Your task to perform on an android device: clear history in the chrome app Image 0: 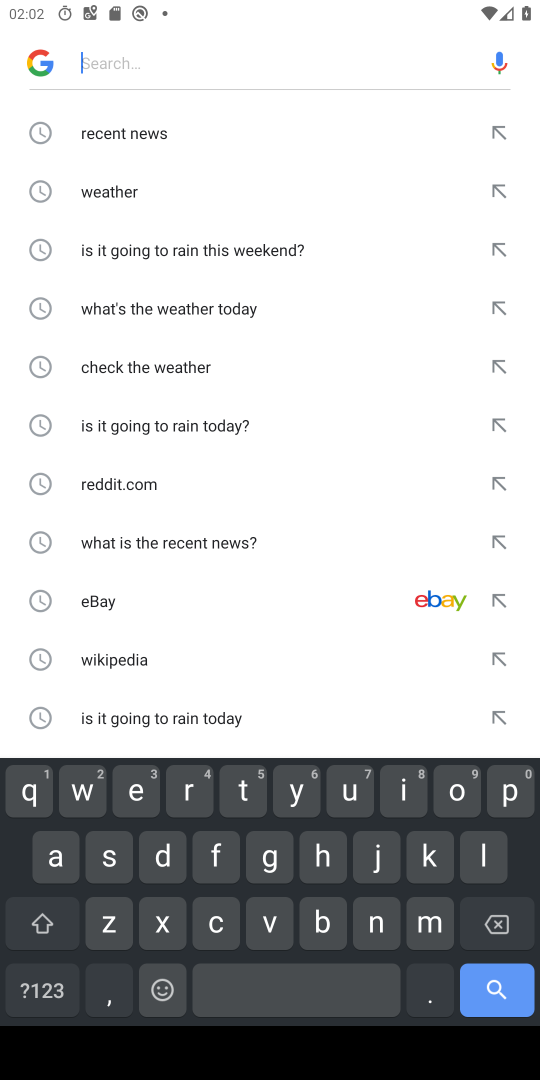
Step 0: press home button
Your task to perform on an android device: clear history in the chrome app Image 1: 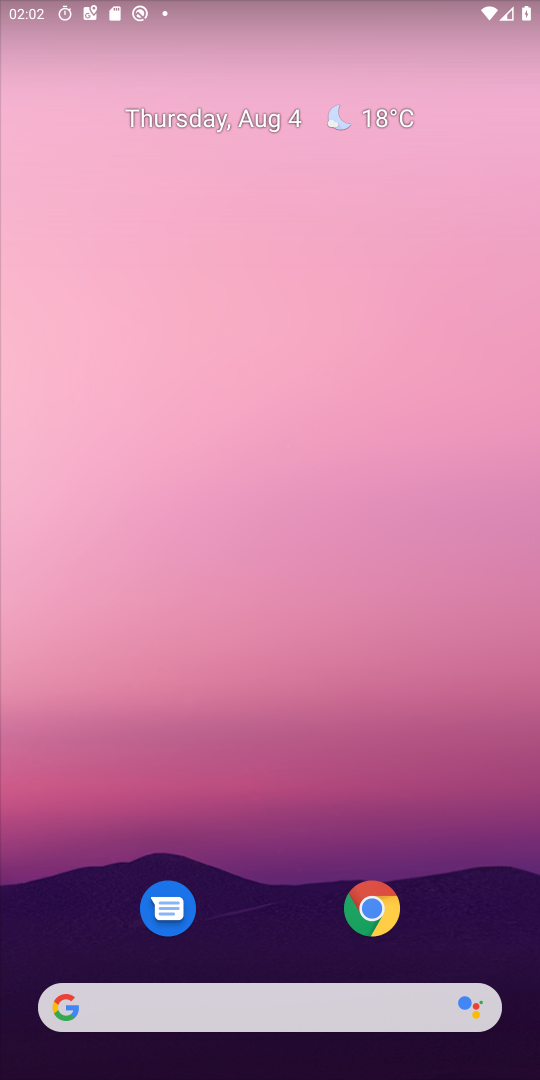
Step 1: drag from (344, 1022) to (262, 271)
Your task to perform on an android device: clear history in the chrome app Image 2: 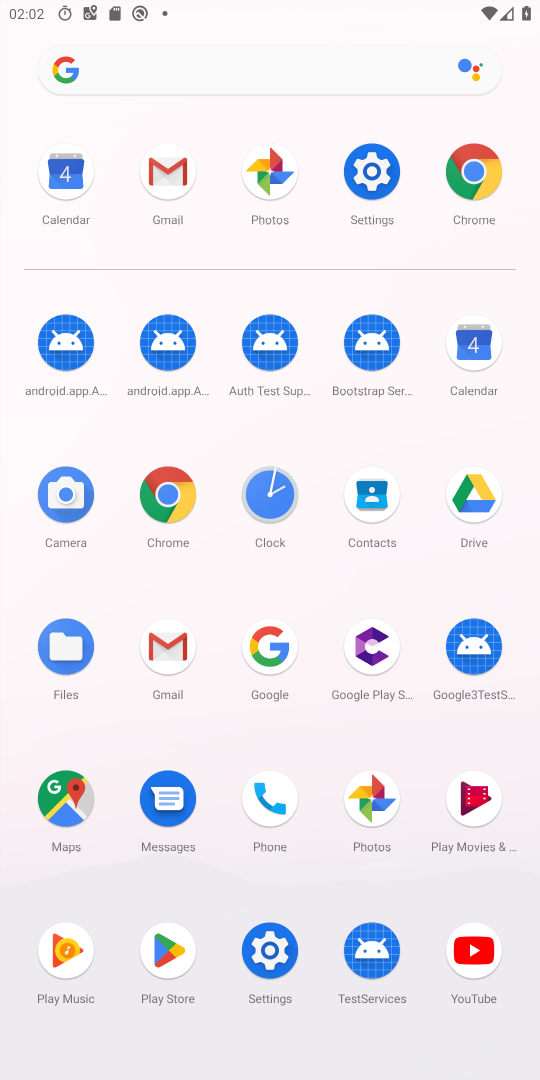
Step 2: click (174, 482)
Your task to perform on an android device: clear history in the chrome app Image 3: 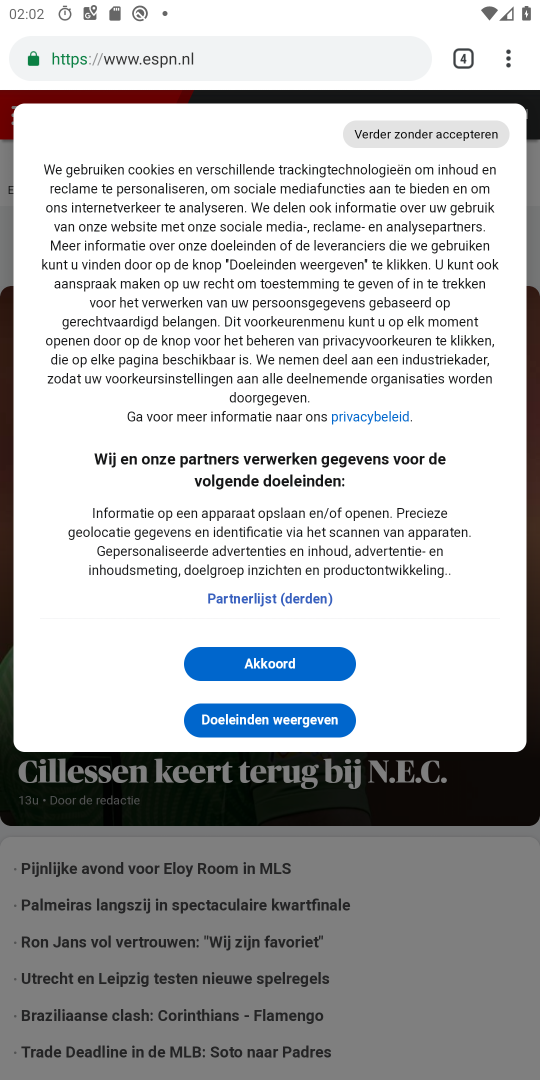
Step 3: click (516, 47)
Your task to perform on an android device: clear history in the chrome app Image 4: 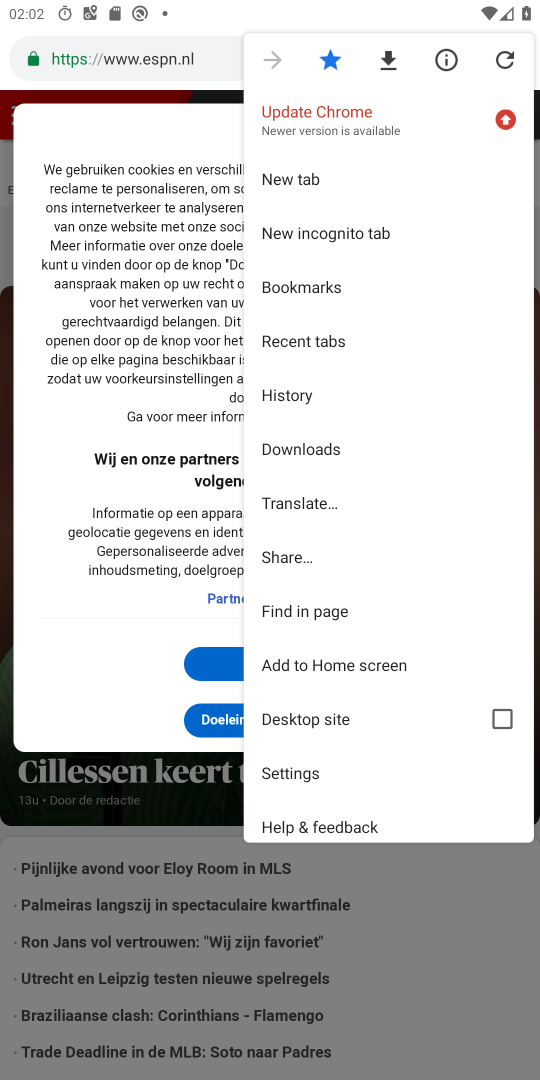
Step 4: click (307, 396)
Your task to perform on an android device: clear history in the chrome app Image 5: 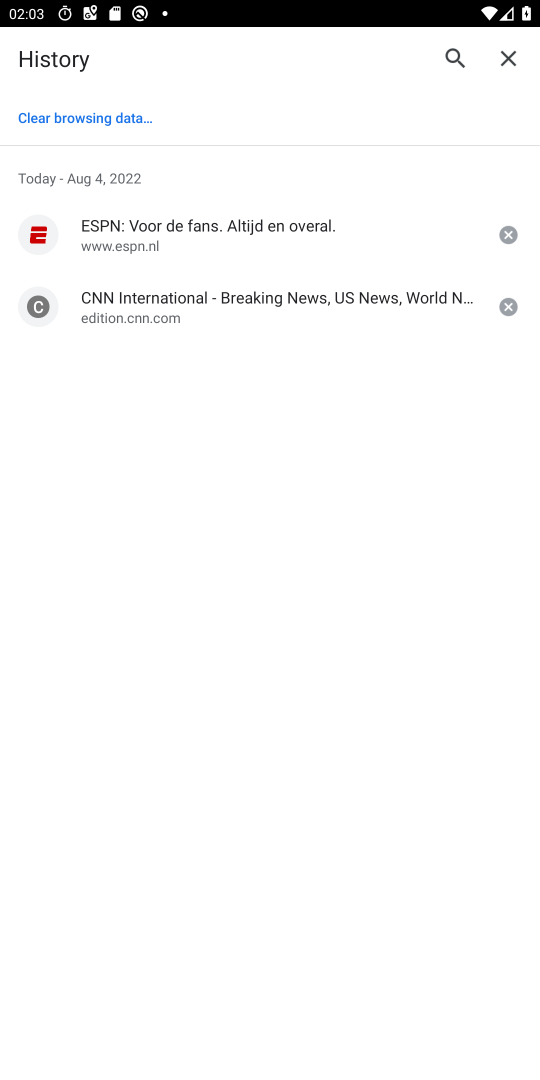
Step 5: click (78, 107)
Your task to perform on an android device: clear history in the chrome app Image 6: 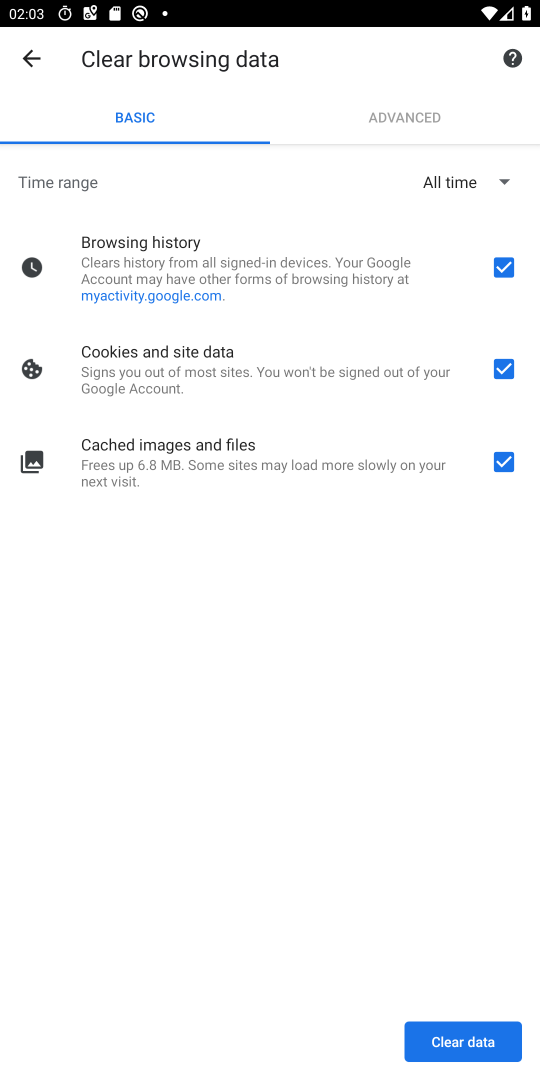
Step 6: click (469, 1063)
Your task to perform on an android device: clear history in the chrome app Image 7: 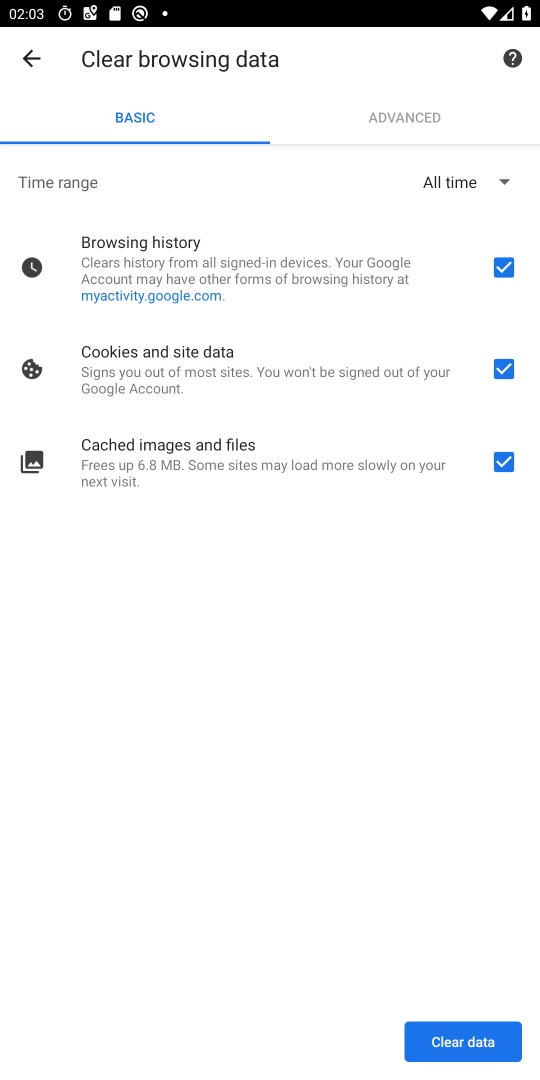
Step 7: click (473, 1039)
Your task to perform on an android device: clear history in the chrome app Image 8: 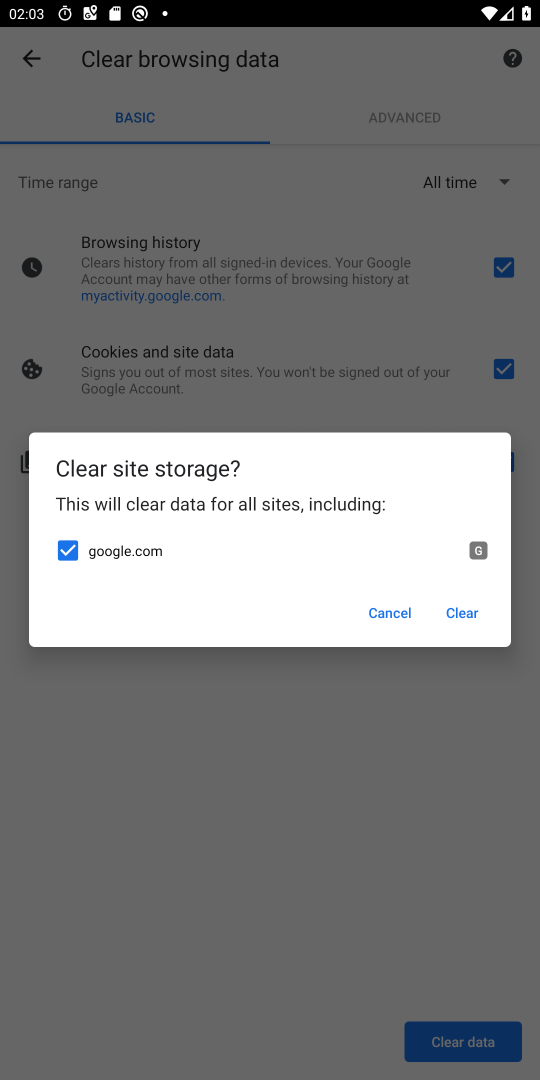
Step 8: click (456, 604)
Your task to perform on an android device: clear history in the chrome app Image 9: 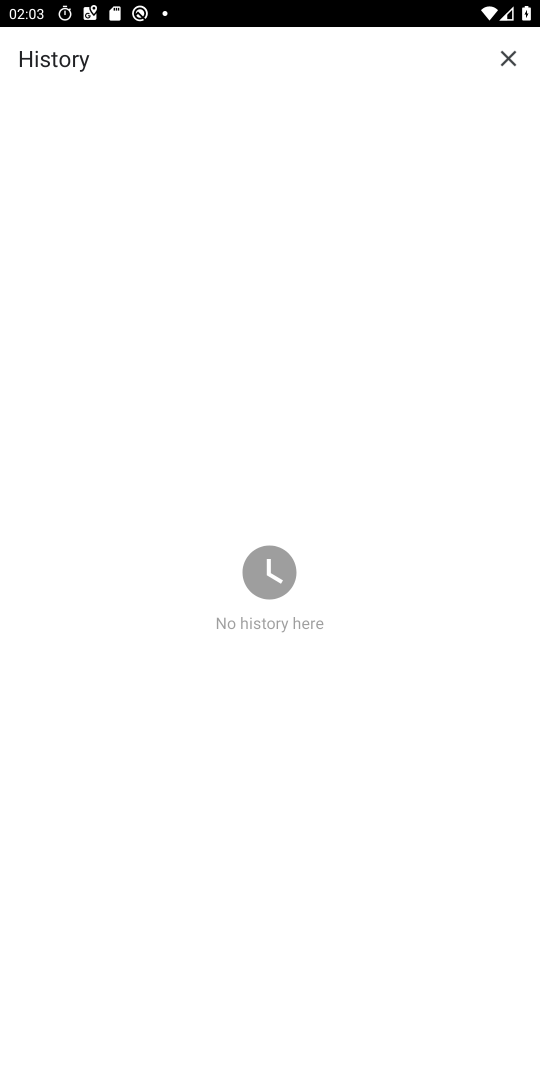
Step 9: task complete